Your task to perform on an android device: stop showing notifications on the lock screen Image 0: 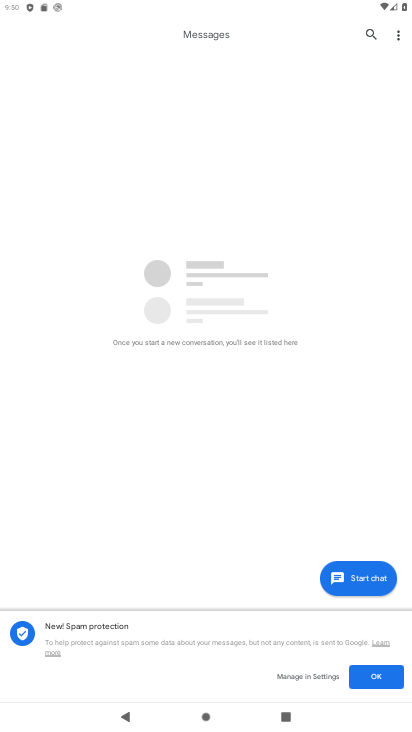
Step 0: press home button
Your task to perform on an android device: stop showing notifications on the lock screen Image 1: 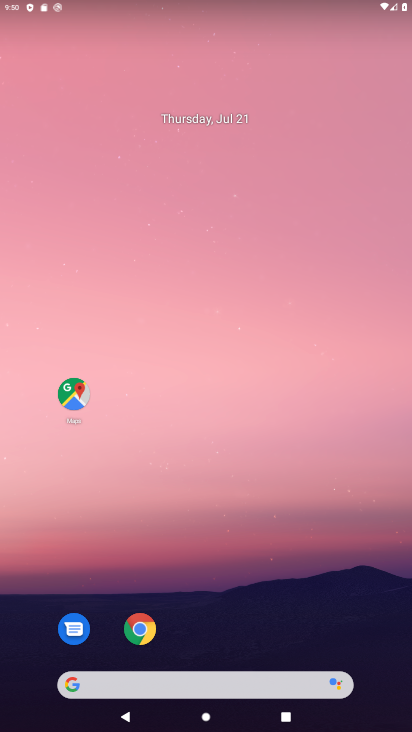
Step 1: drag from (289, 546) to (321, 171)
Your task to perform on an android device: stop showing notifications on the lock screen Image 2: 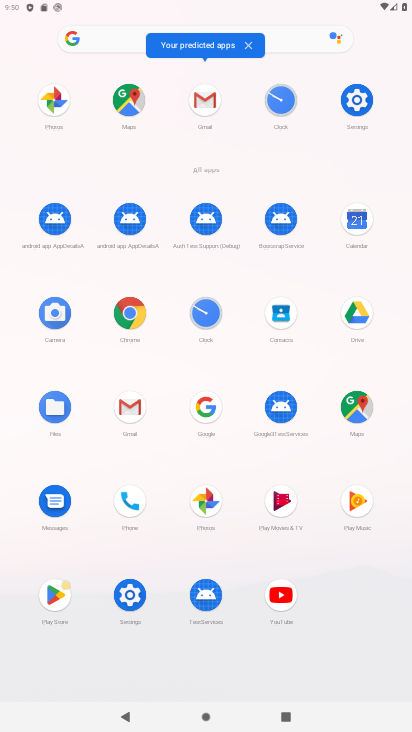
Step 2: click (363, 84)
Your task to perform on an android device: stop showing notifications on the lock screen Image 3: 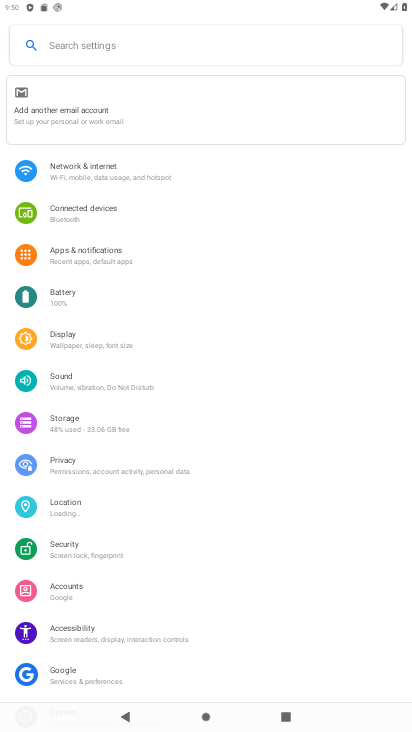
Step 3: click (81, 252)
Your task to perform on an android device: stop showing notifications on the lock screen Image 4: 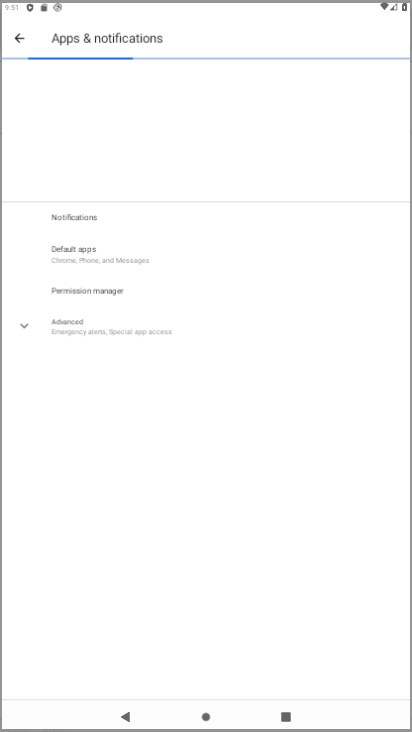
Step 4: click (81, 252)
Your task to perform on an android device: stop showing notifications on the lock screen Image 5: 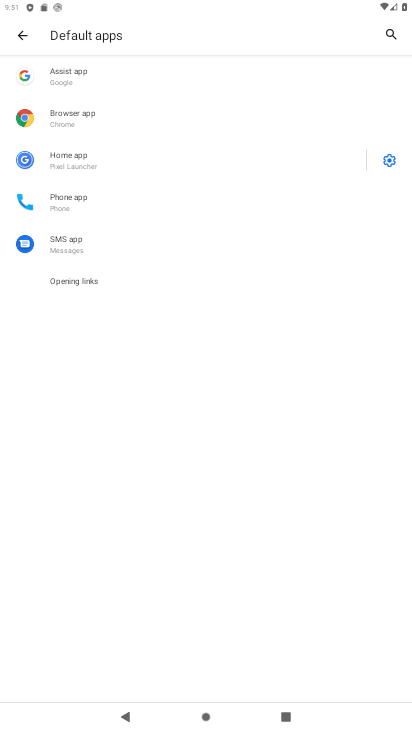
Step 5: press back button
Your task to perform on an android device: stop showing notifications on the lock screen Image 6: 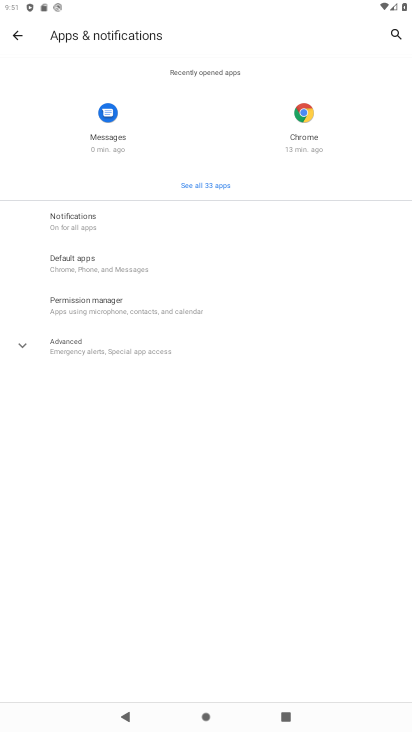
Step 6: click (59, 215)
Your task to perform on an android device: stop showing notifications on the lock screen Image 7: 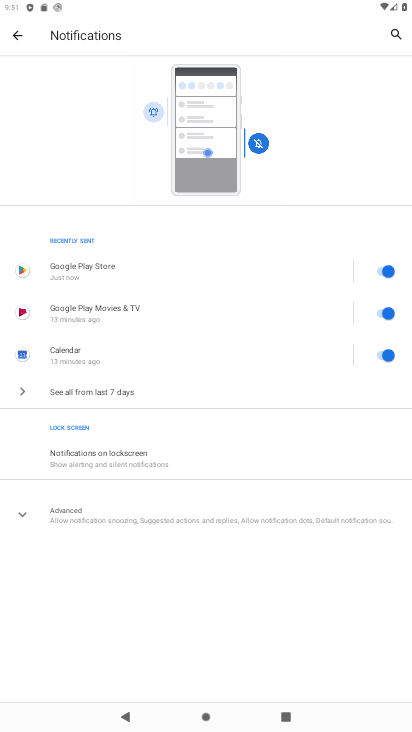
Step 7: task complete